Your task to perform on an android device: View the shopping cart on newegg. Image 0: 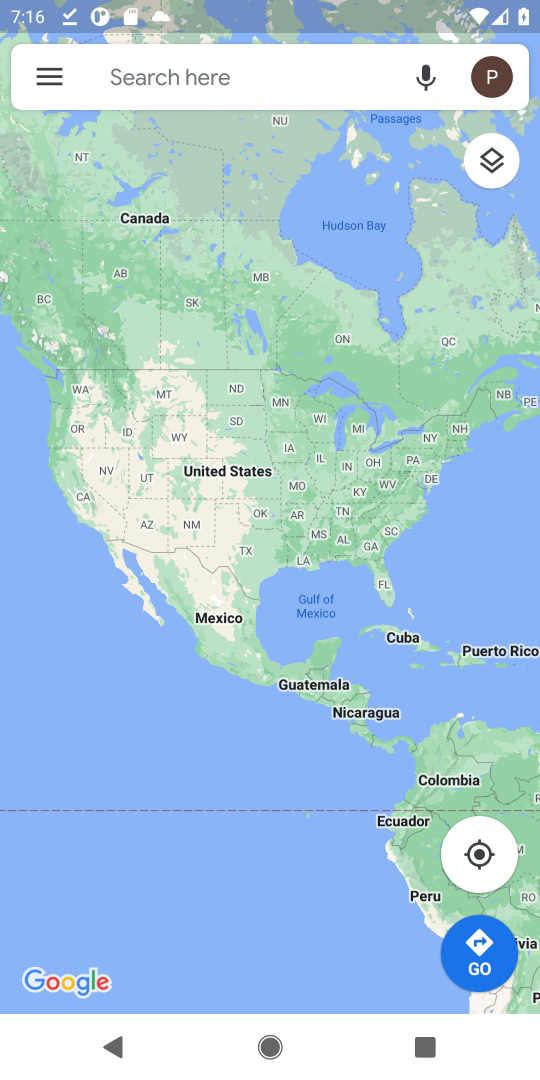
Step 0: press home button
Your task to perform on an android device: View the shopping cart on newegg. Image 1: 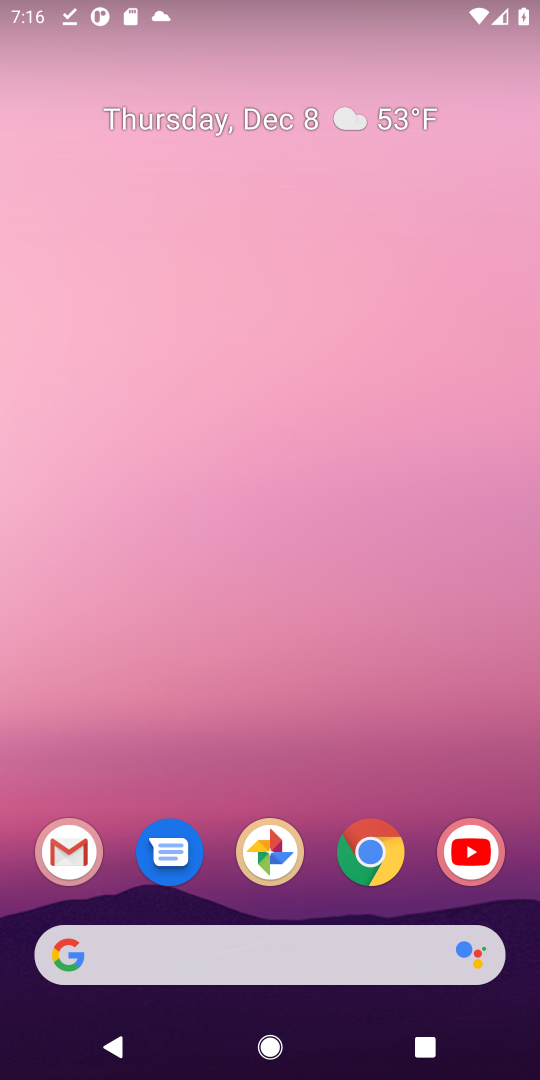
Step 1: press home button
Your task to perform on an android device: View the shopping cart on newegg. Image 2: 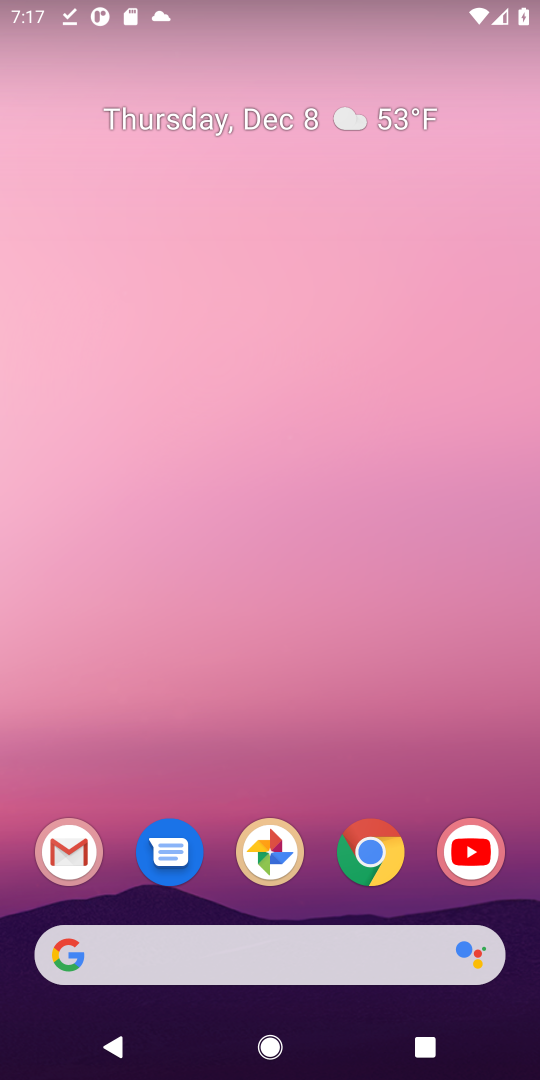
Step 2: click (323, 956)
Your task to perform on an android device: View the shopping cart on newegg. Image 3: 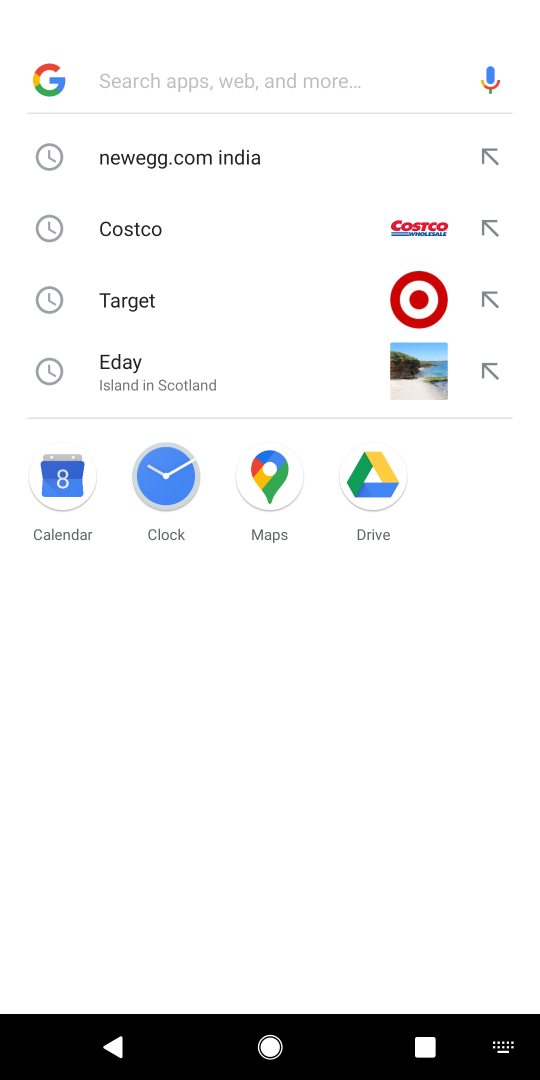
Step 3: click (127, 163)
Your task to perform on an android device: View the shopping cart on newegg. Image 4: 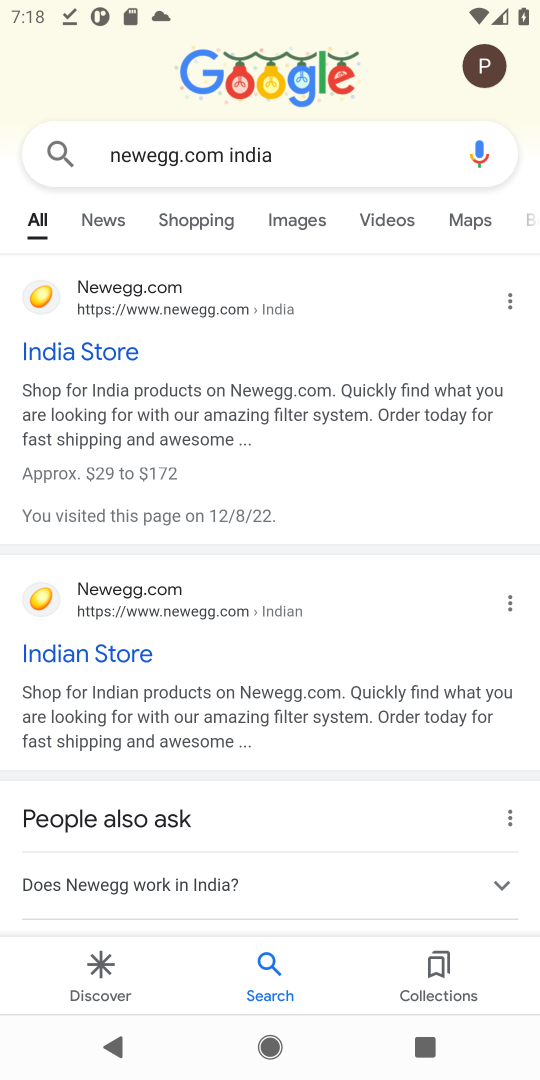
Step 4: click (80, 373)
Your task to perform on an android device: View the shopping cart on newegg. Image 5: 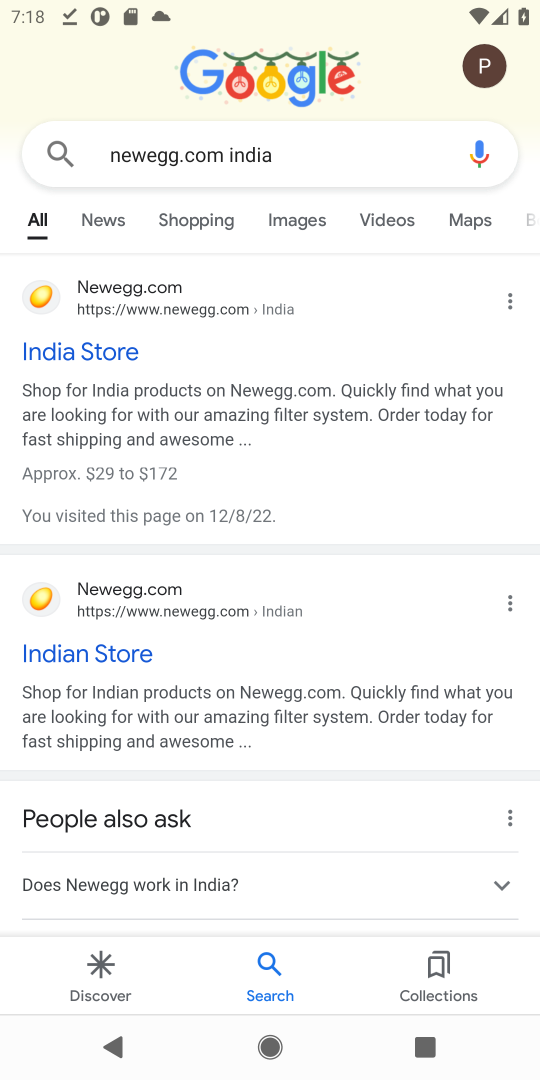
Step 5: click (80, 371)
Your task to perform on an android device: View the shopping cart on newegg. Image 6: 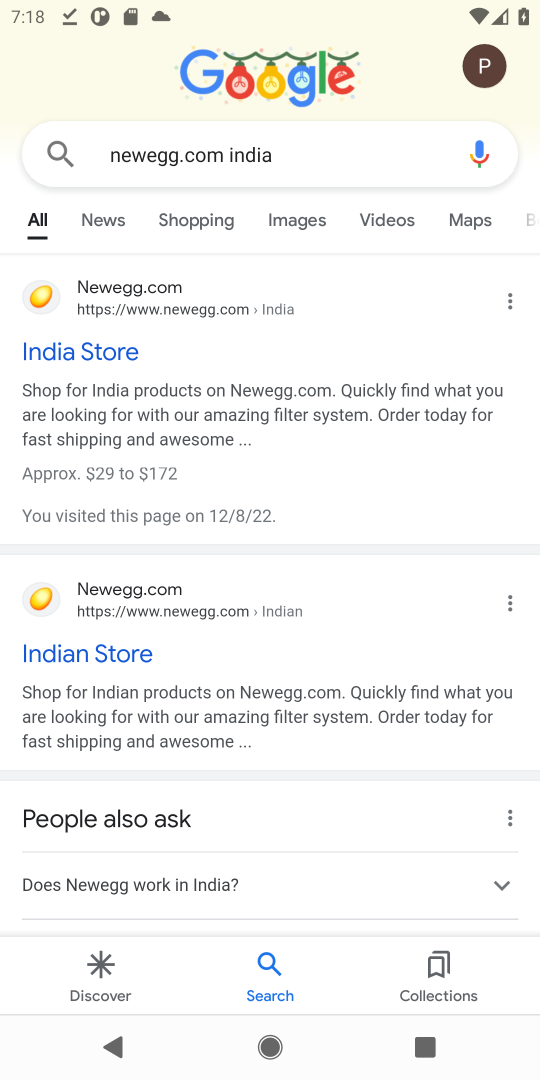
Step 6: click (51, 343)
Your task to perform on an android device: View the shopping cart on newegg. Image 7: 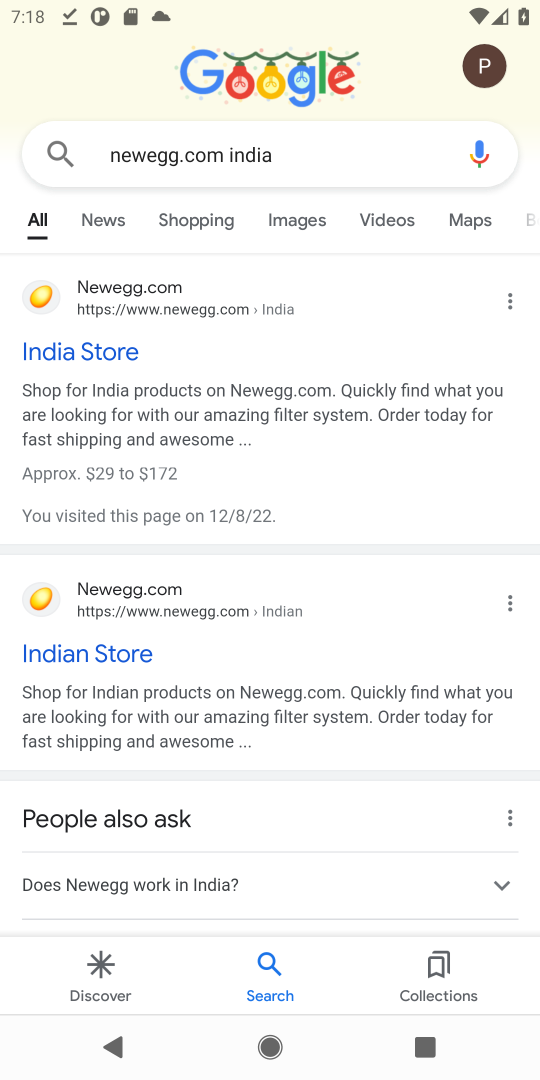
Step 7: click (51, 343)
Your task to perform on an android device: View the shopping cart on newegg. Image 8: 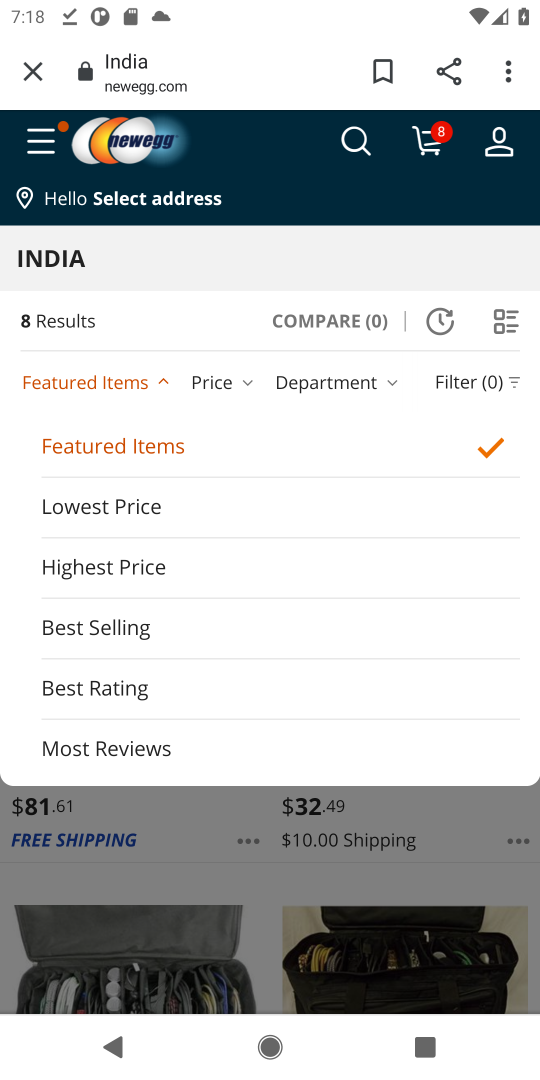
Step 8: click (364, 148)
Your task to perform on an android device: View the shopping cart on newegg. Image 9: 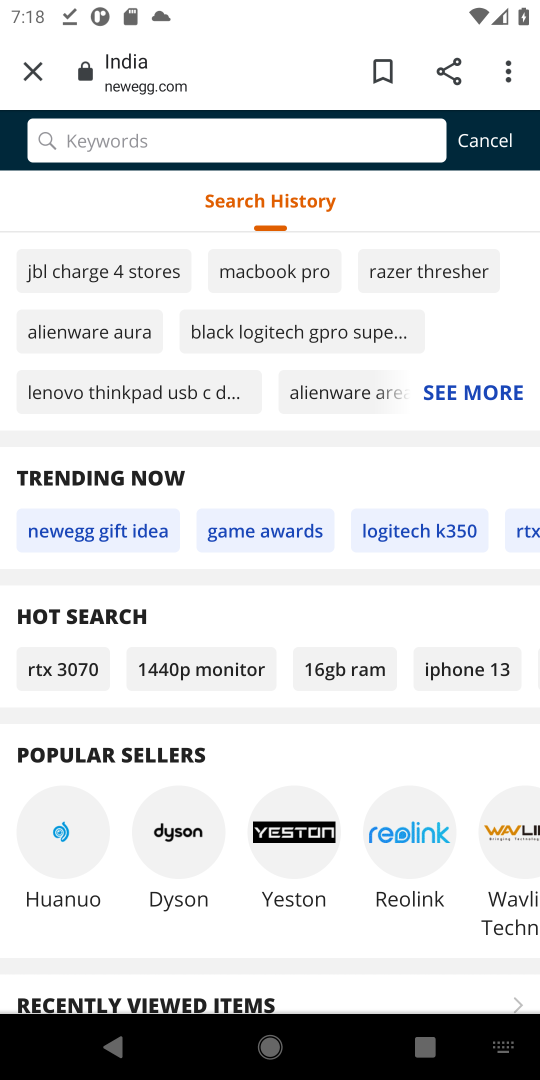
Step 9: task complete